Your task to perform on an android device: Open the map Image 0: 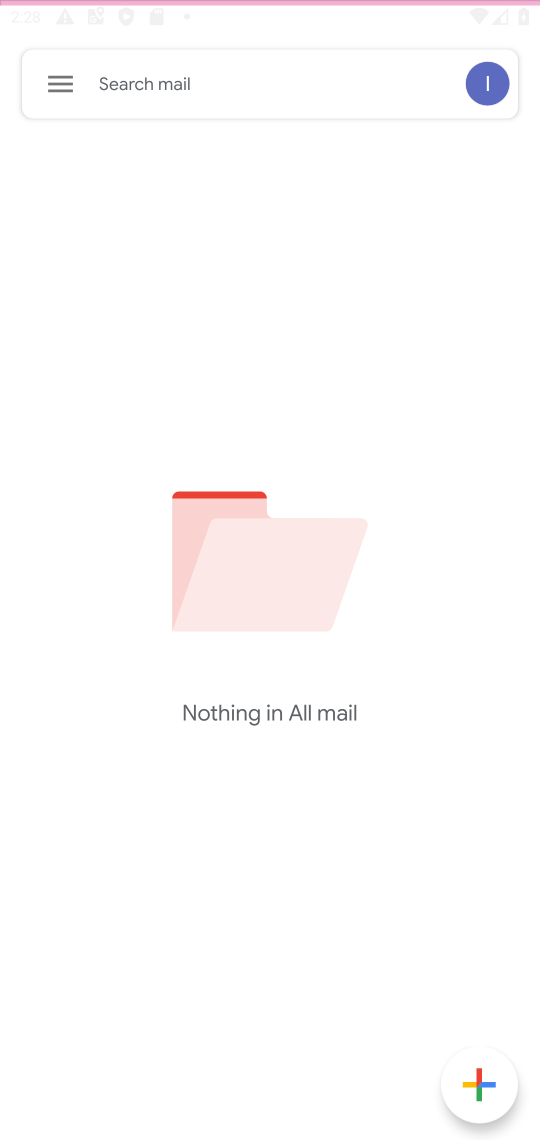
Step 0: press home button
Your task to perform on an android device: Open the map Image 1: 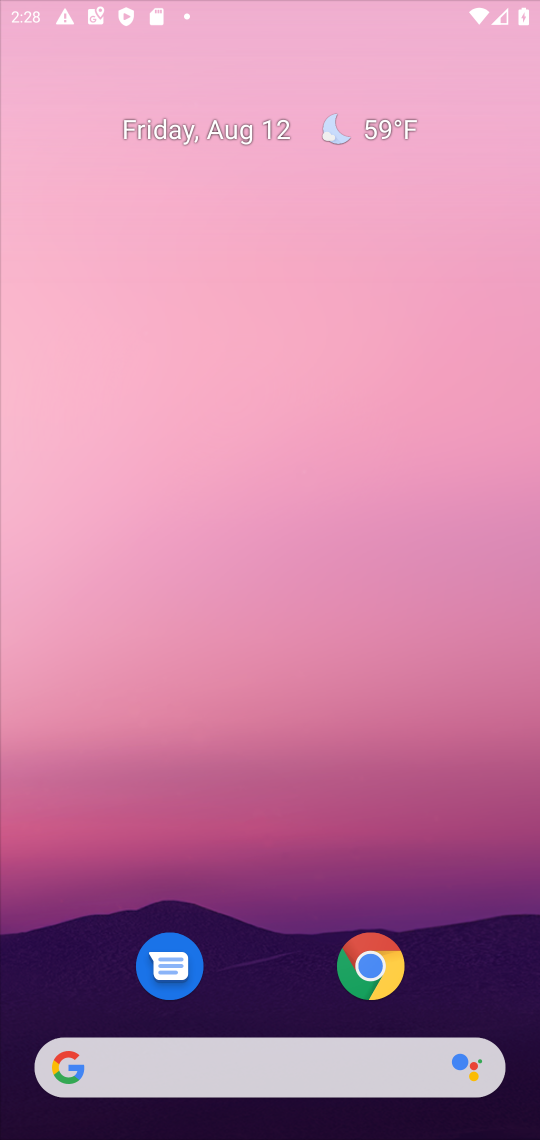
Step 1: press home button
Your task to perform on an android device: Open the map Image 2: 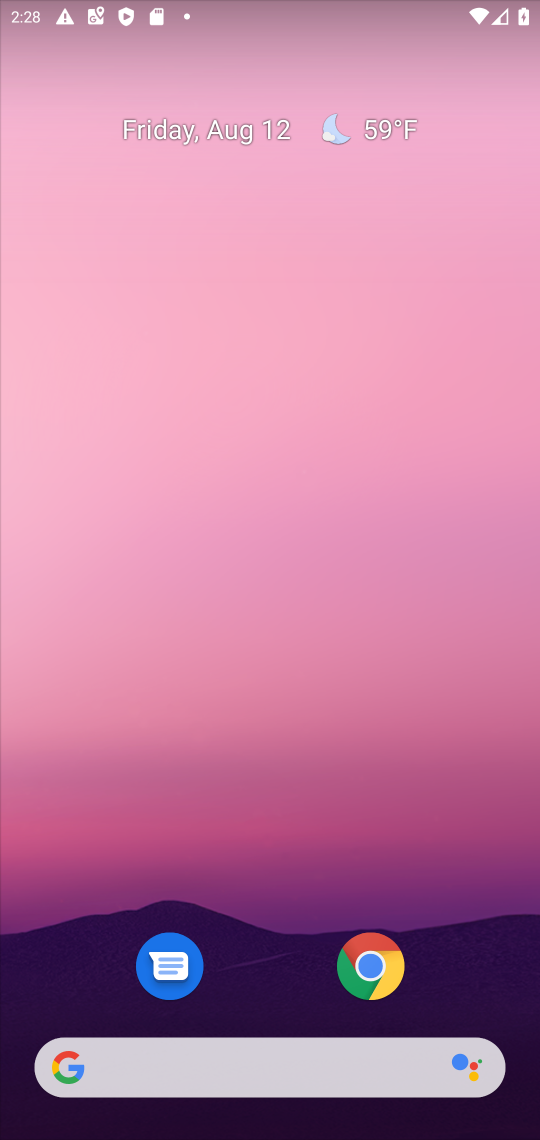
Step 2: drag from (277, 989) to (322, 247)
Your task to perform on an android device: Open the map Image 3: 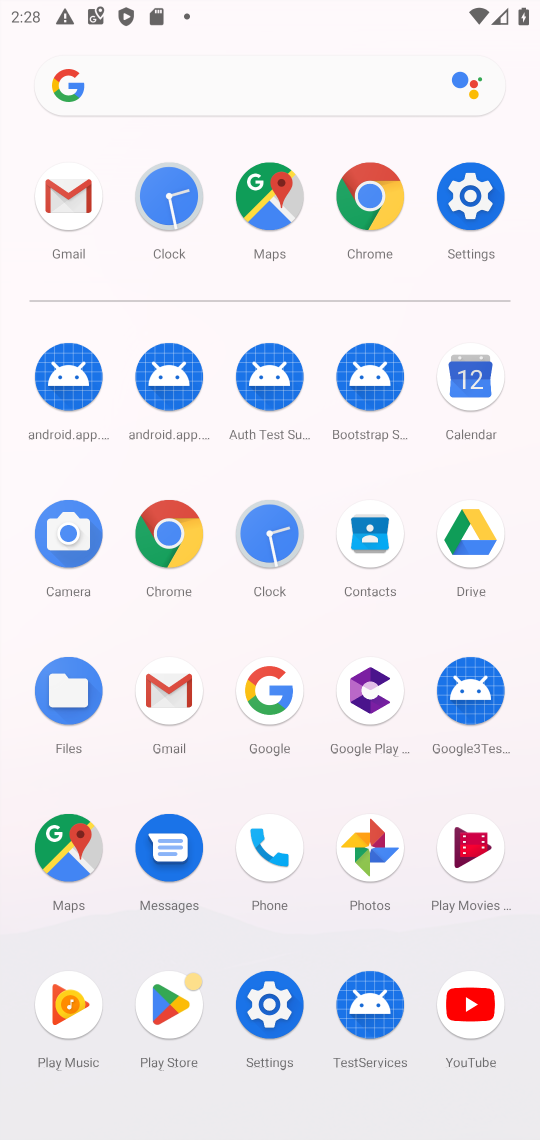
Step 3: click (71, 839)
Your task to perform on an android device: Open the map Image 4: 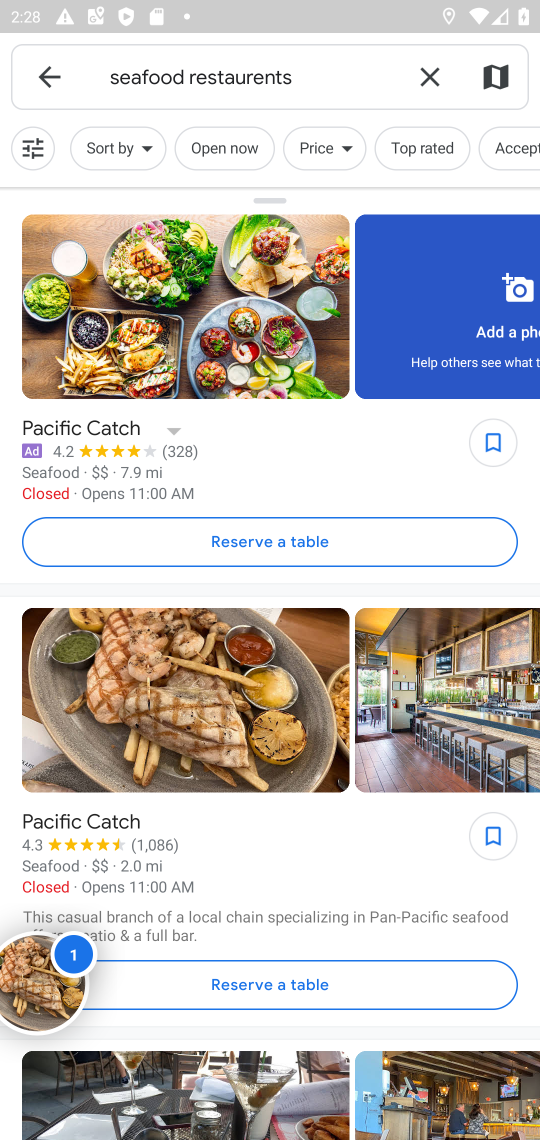
Step 4: task complete